Your task to perform on an android device: Open Google Maps Image 0: 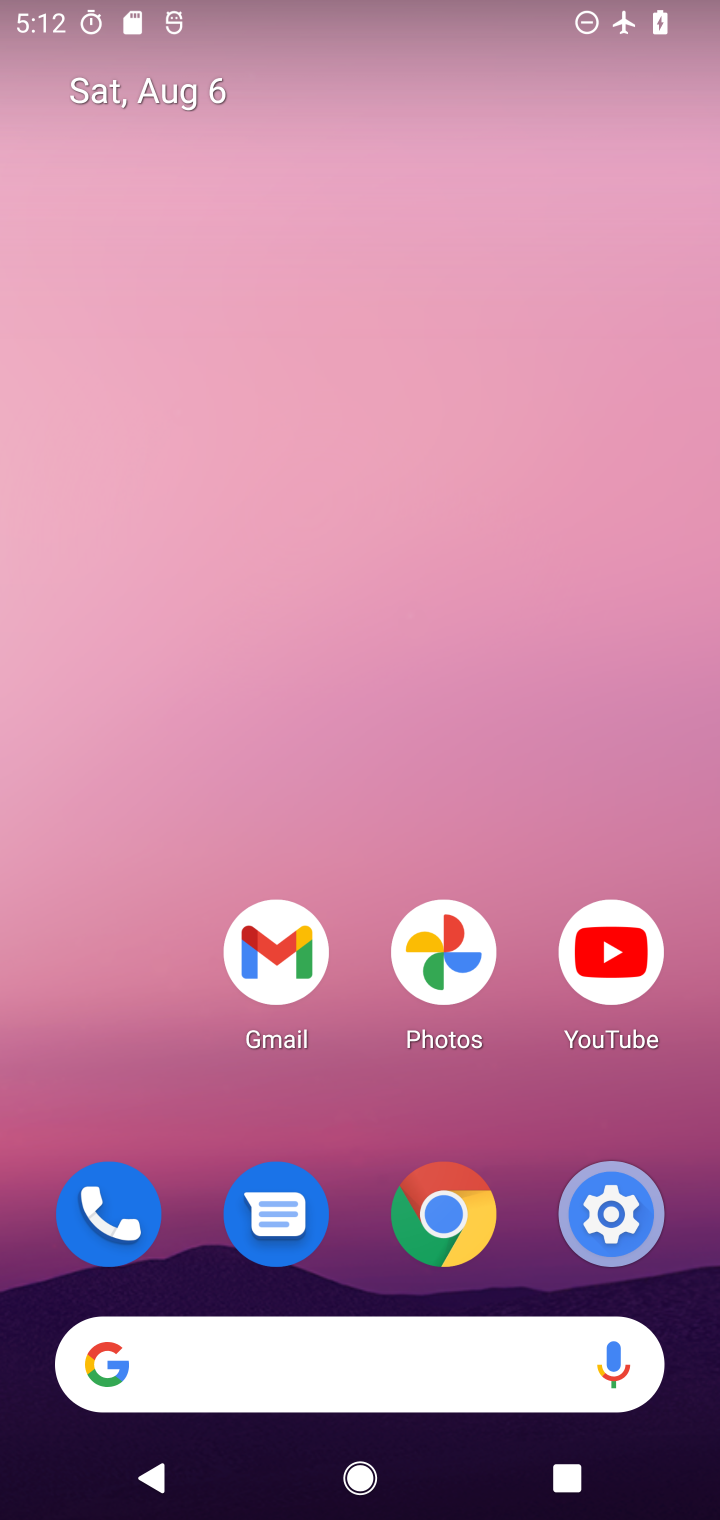
Step 0: drag from (356, 558) to (343, 241)
Your task to perform on an android device: Open Google Maps Image 1: 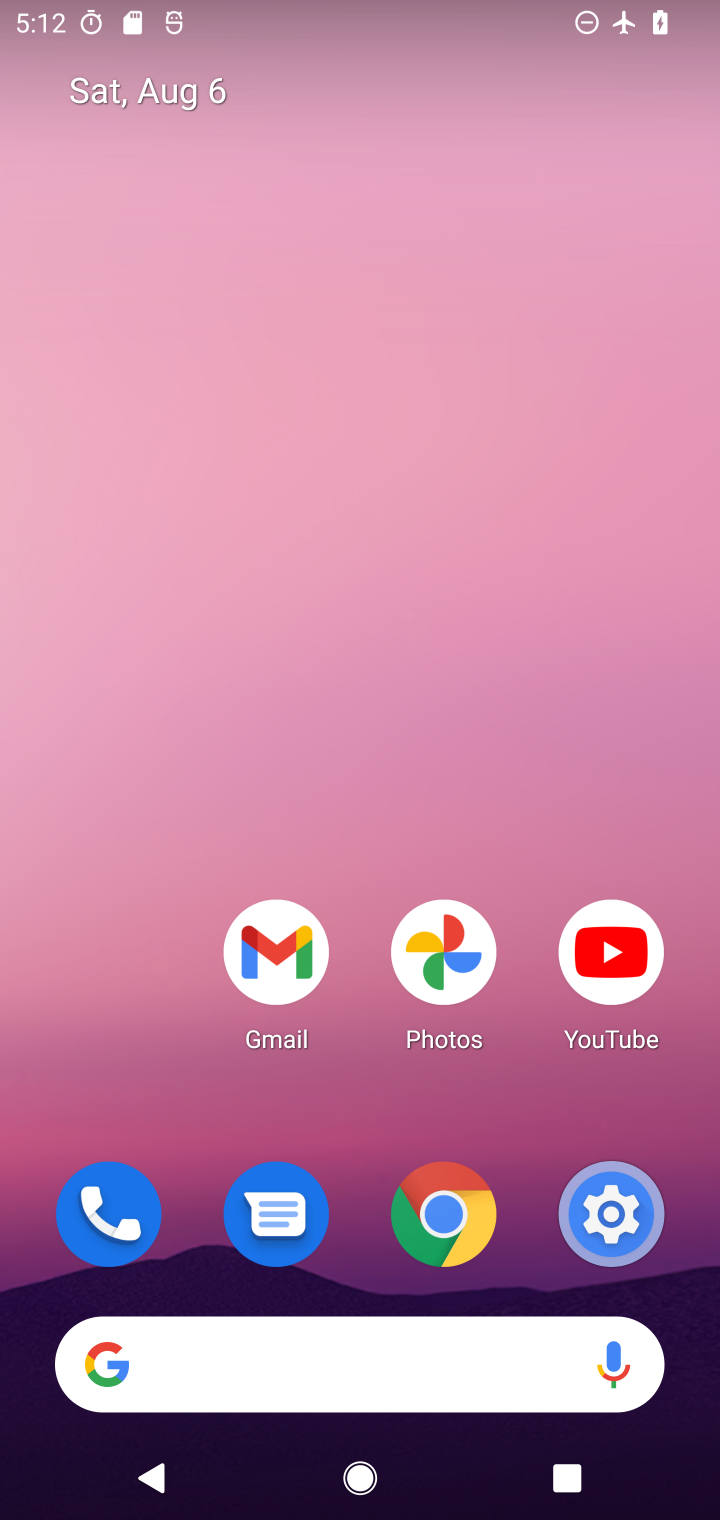
Step 1: drag from (339, 1177) to (300, 9)
Your task to perform on an android device: Open Google Maps Image 2: 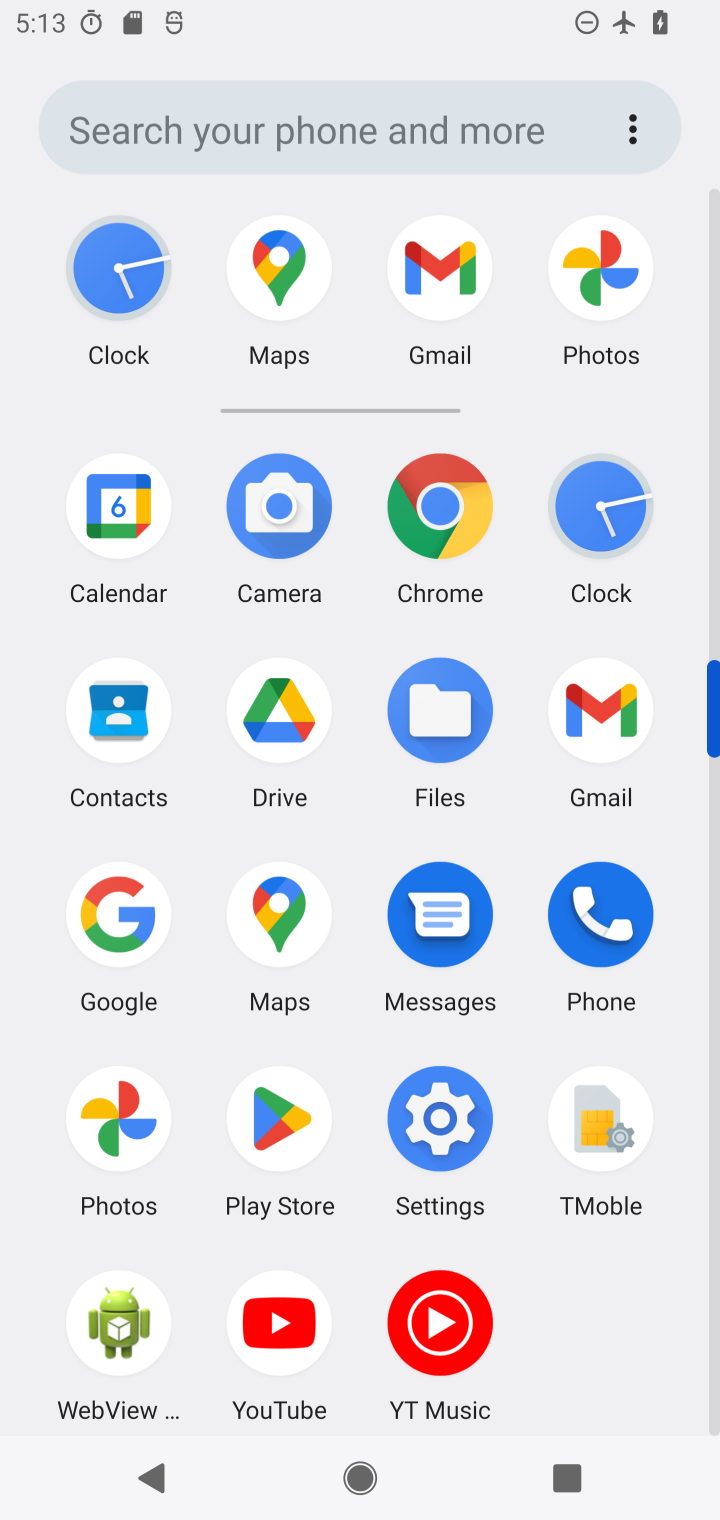
Step 2: click (280, 242)
Your task to perform on an android device: Open Google Maps Image 3: 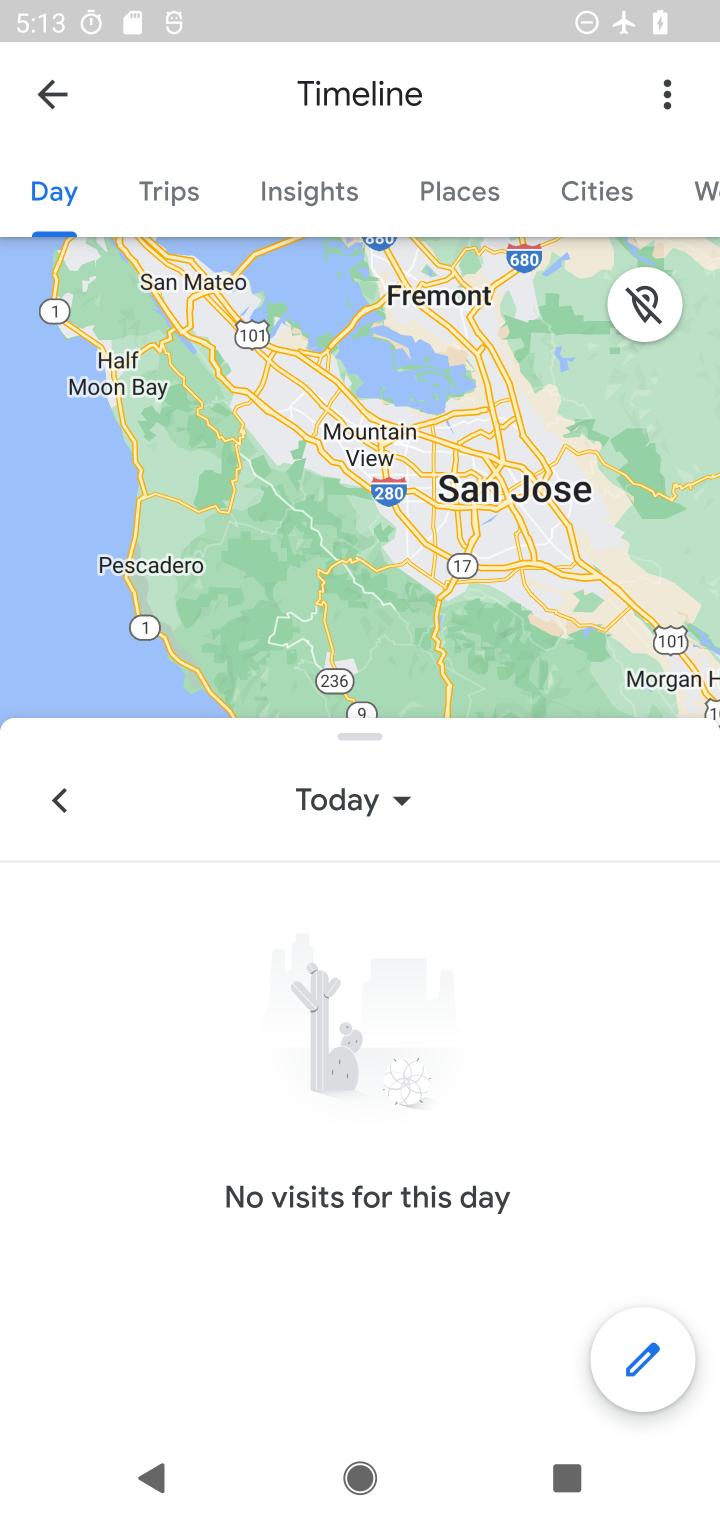
Step 3: task complete